Your task to perform on an android device: turn off smart reply in the gmail app Image 0: 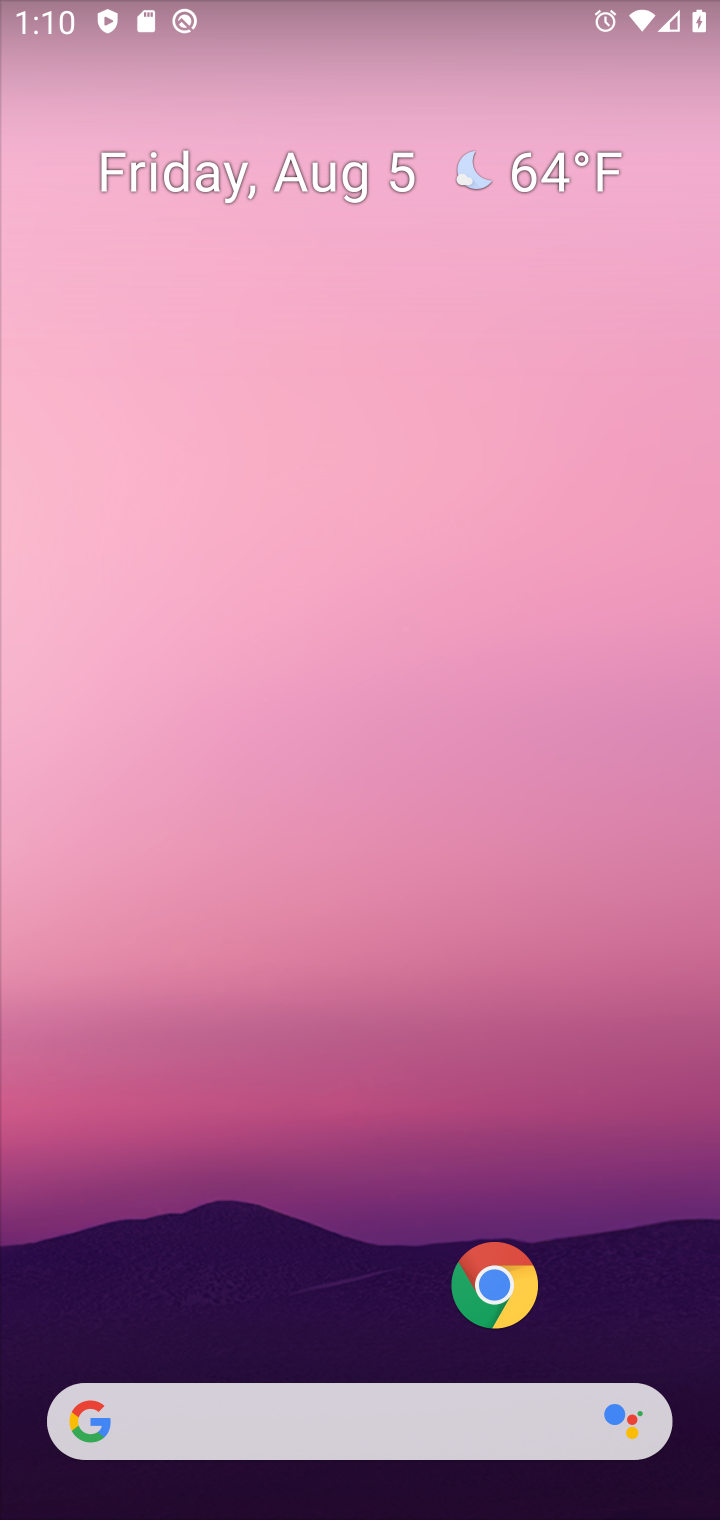
Step 0: press home button
Your task to perform on an android device: turn off smart reply in the gmail app Image 1: 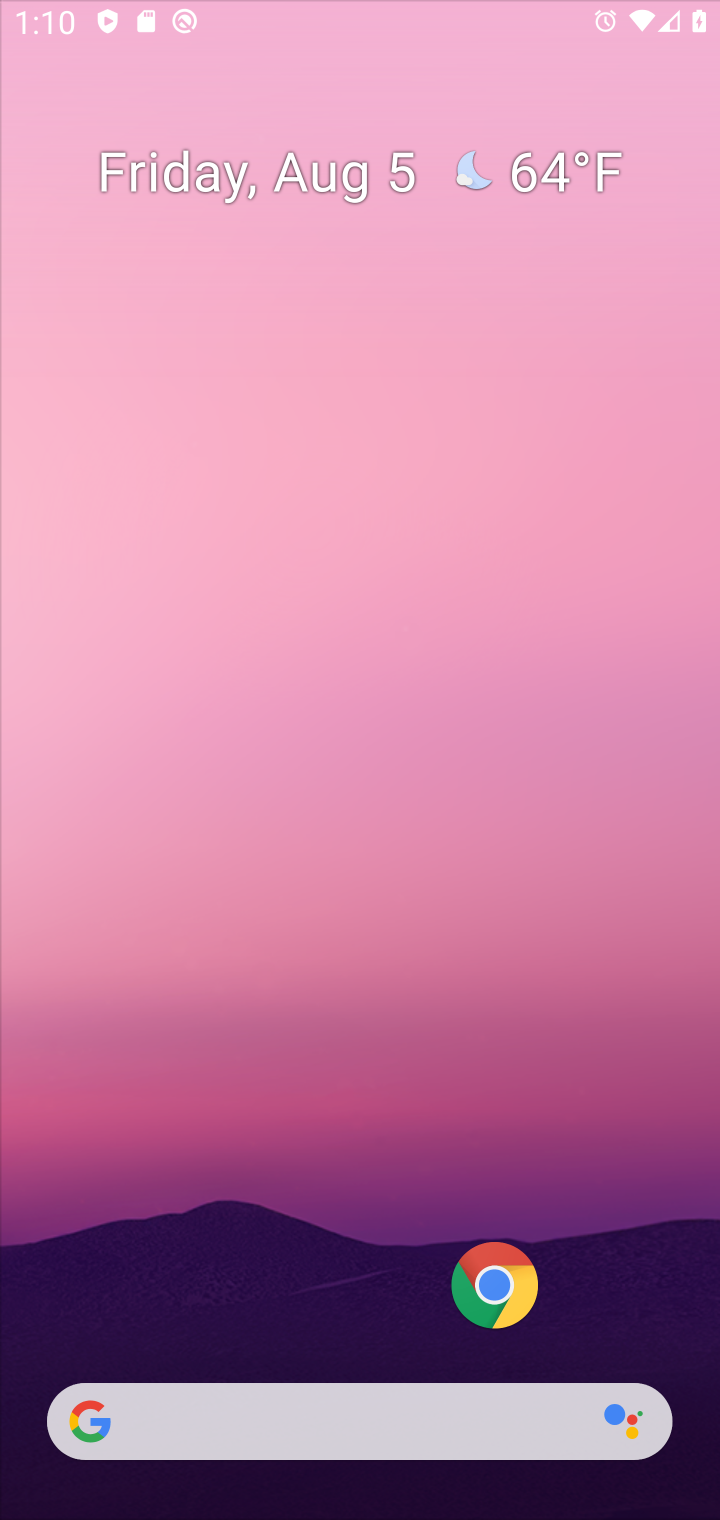
Step 1: drag from (360, 1388) to (278, 282)
Your task to perform on an android device: turn off smart reply in the gmail app Image 2: 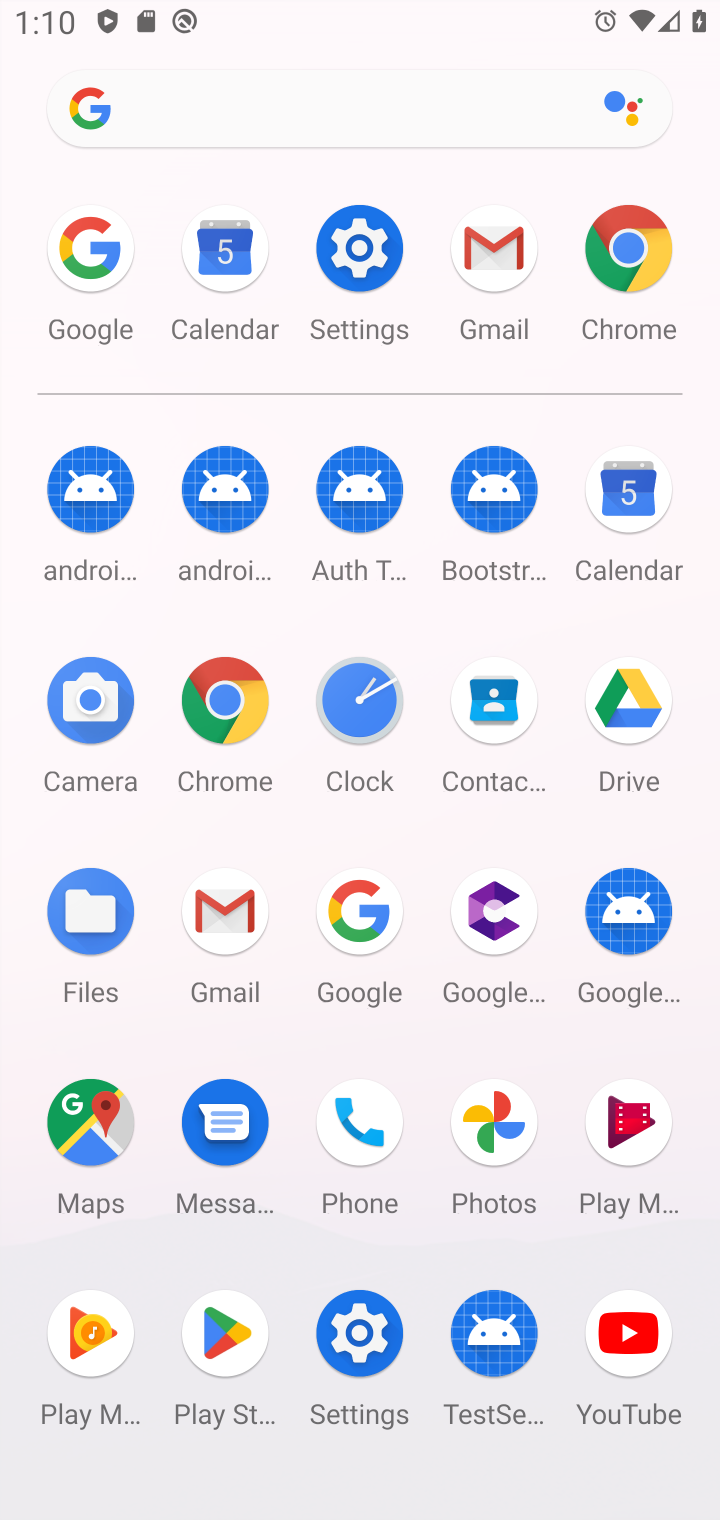
Step 2: click (498, 256)
Your task to perform on an android device: turn off smart reply in the gmail app Image 3: 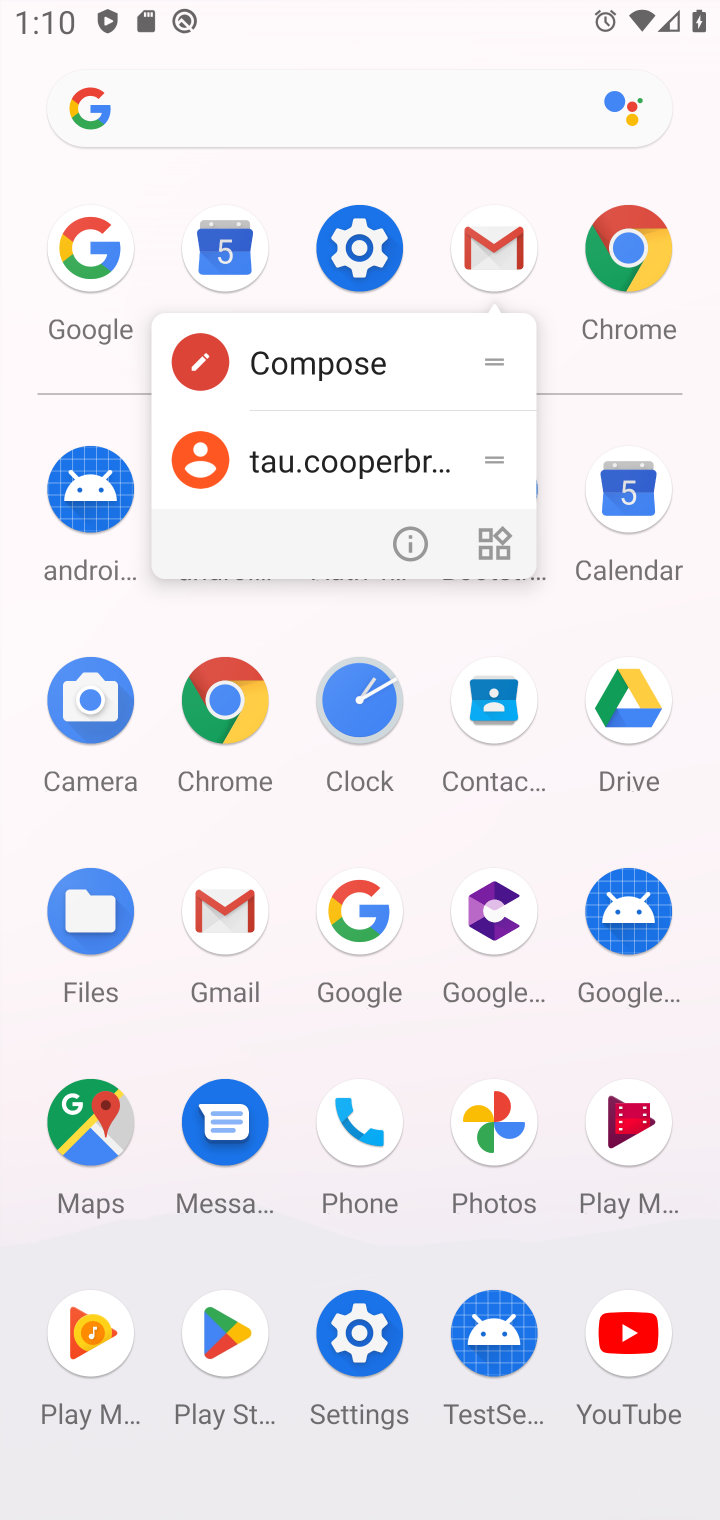
Step 3: click (498, 256)
Your task to perform on an android device: turn off smart reply in the gmail app Image 4: 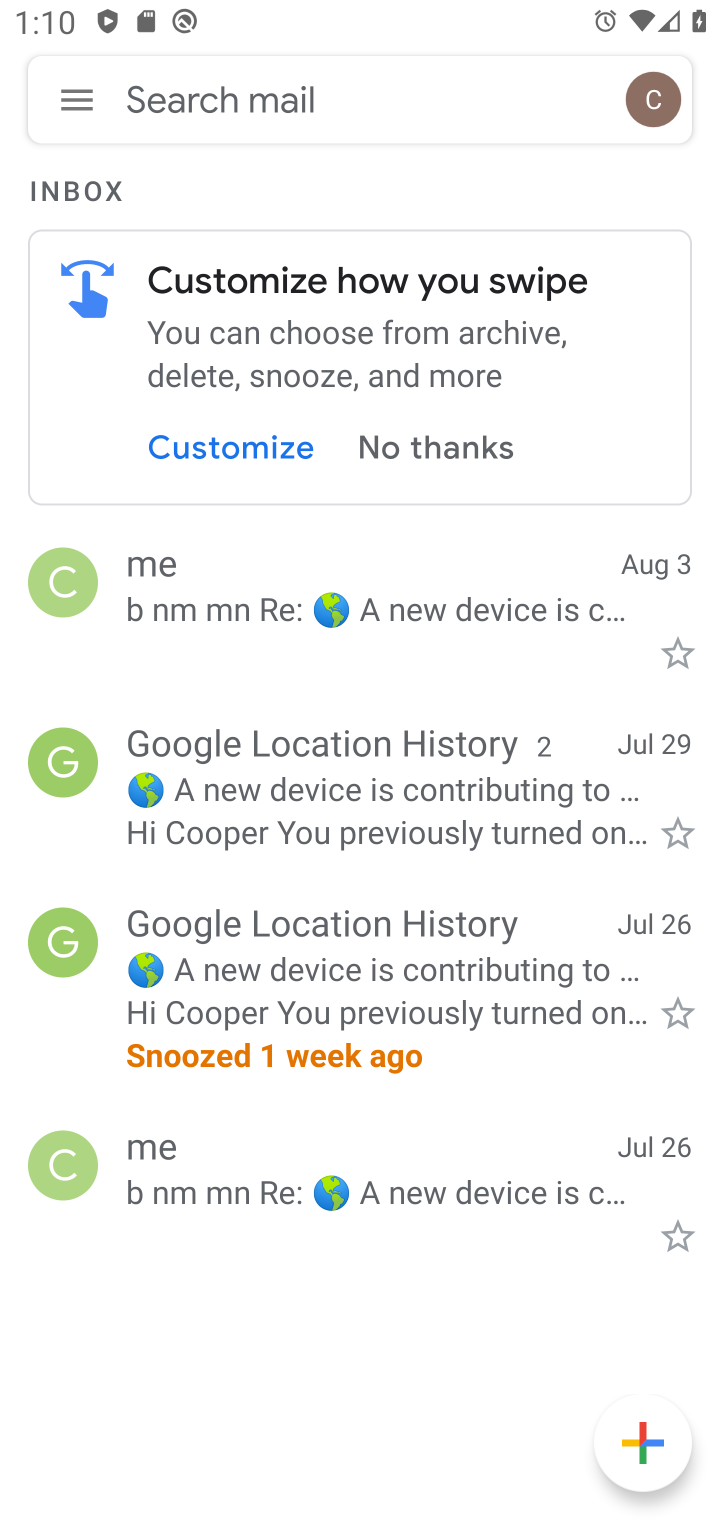
Step 4: click (70, 119)
Your task to perform on an android device: turn off smart reply in the gmail app Image 5: 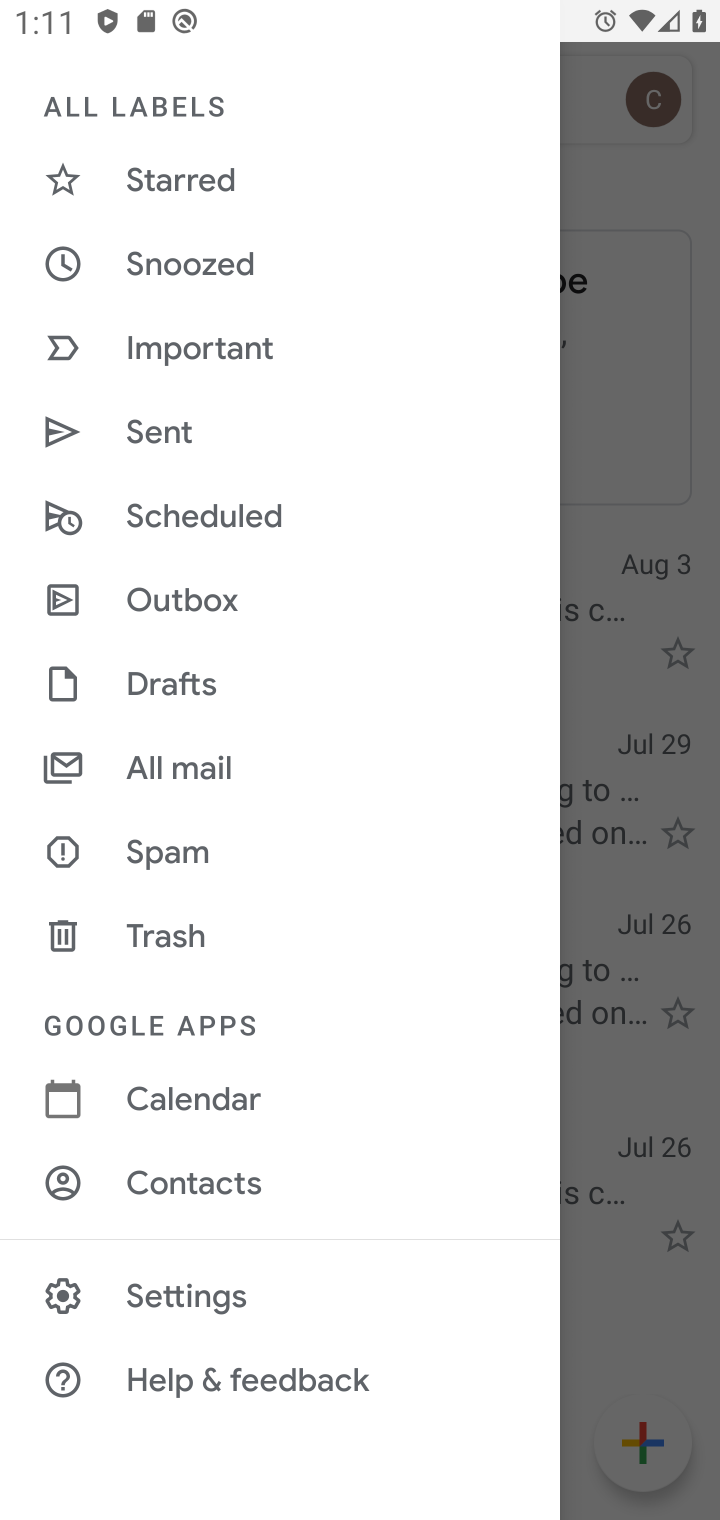
Step 5: click (113, 1268)
Your task to perform on an android device: turn off smart reply in the gmail app Image 6: 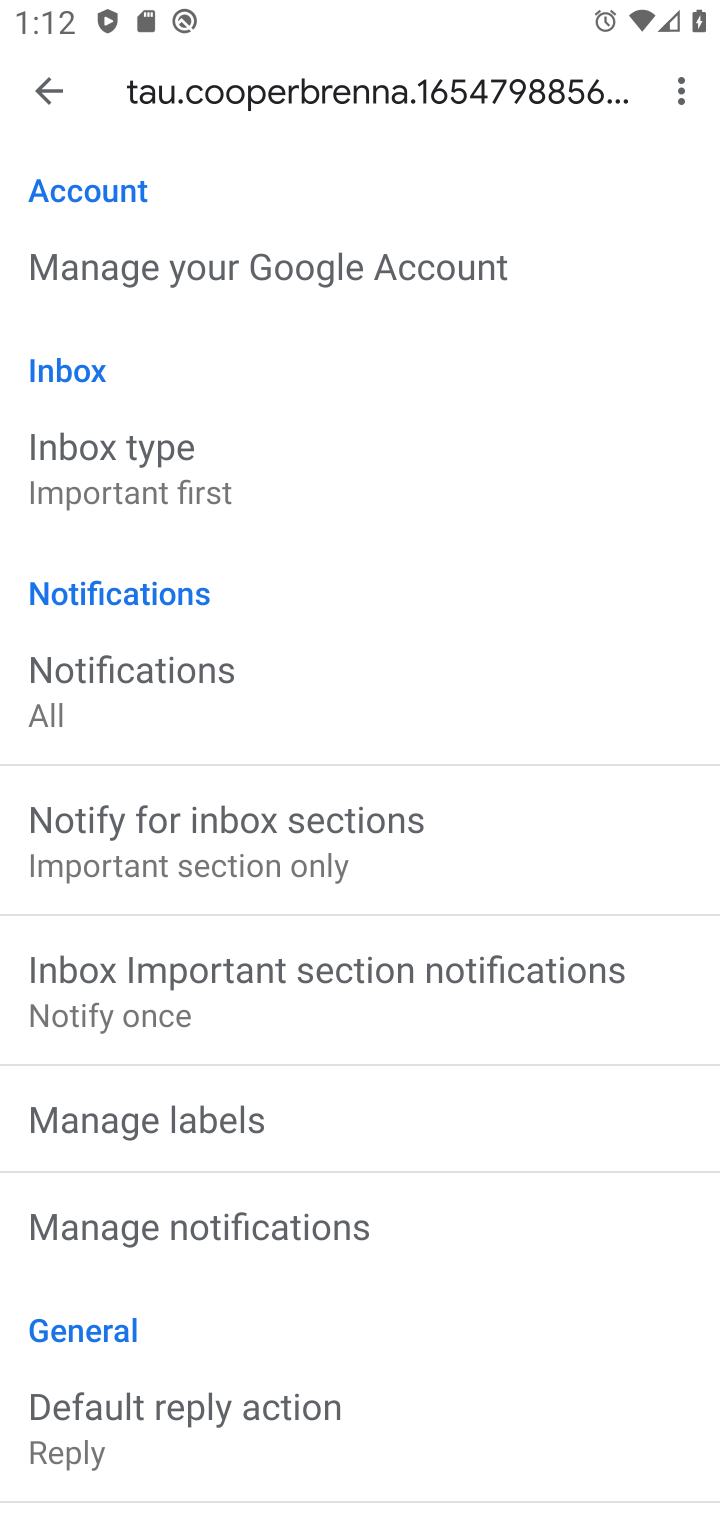
Step 6: task complete